Your task to perform on an android device: change timer sound Image 0: 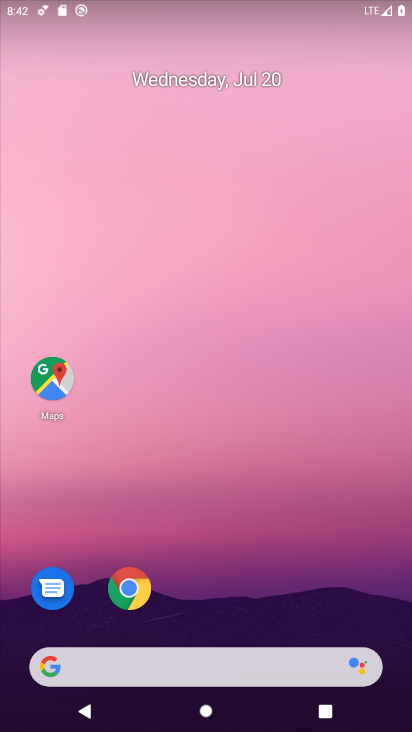
Step 0: press home button
Your task to perform on an android device: change timer sound Image 1: 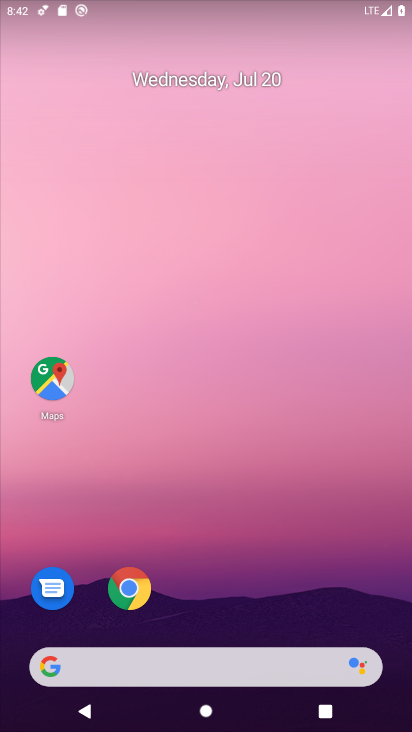
Step 1: drag from (213, 631) to (223, 71)
Your task to perform on an android device: change timer sound Image 2: 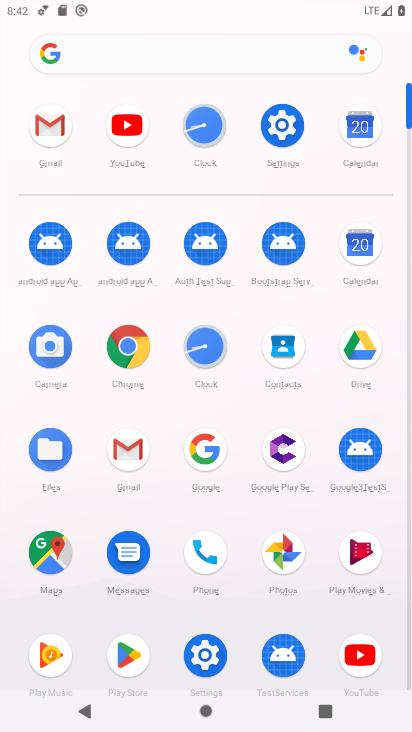
Step 2: click (200, 337)
Your task to perform on an android device: change timer sound Image 3: 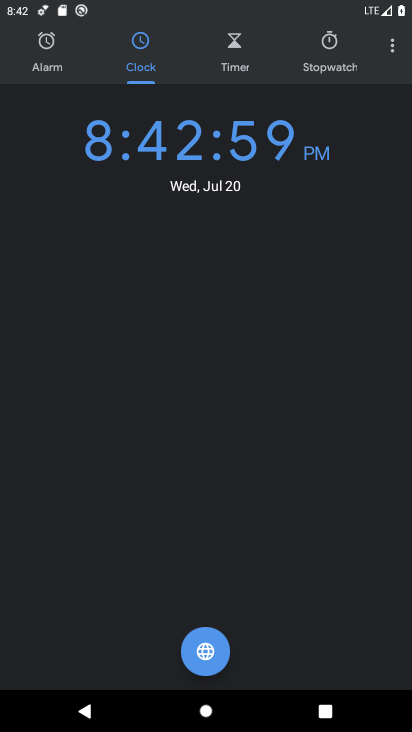
Step 3: click (390, 49)
Your task to perform on an android device: change timer sound Image 4: 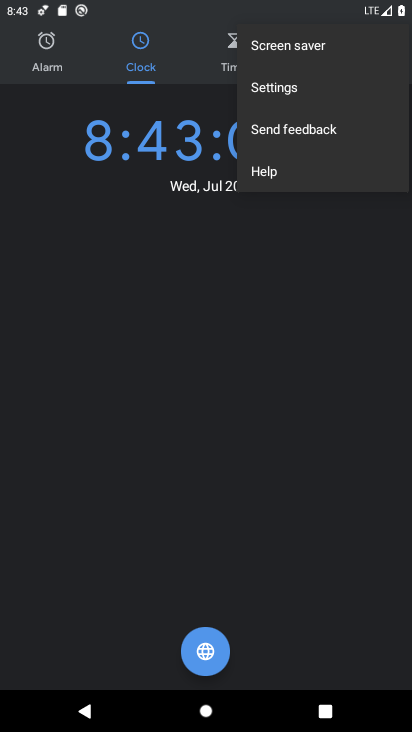
Step 4: click (309, 82)
Your task to perform on an android device: change timer sound Image 5: 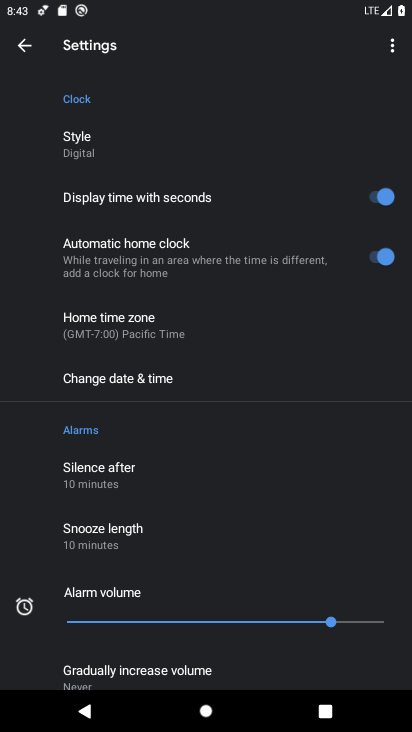
Step 5: drag from (168, 586) to (217, 194)
Your task to perform on an android device: change timer sound Image 6: 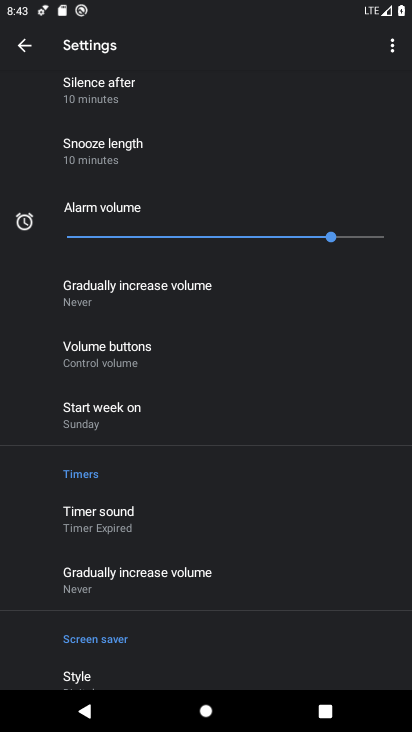
Step 6: click (149, 521)
Your task to perform on an android device: change timer sound Image 7: 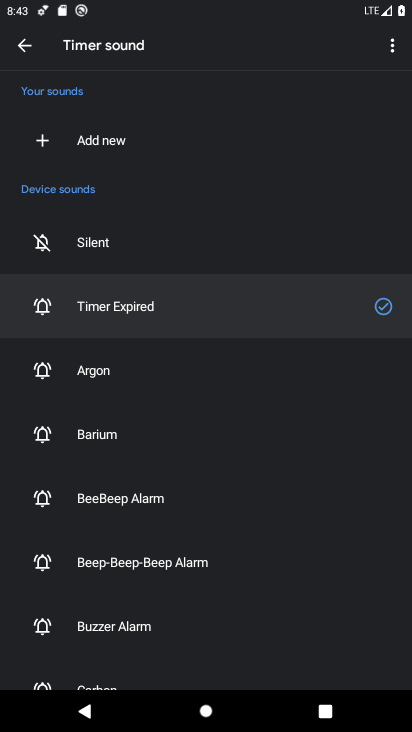
Step 7: click (169, 627)
Your task to perform on an android device: change timer sound Image 8: 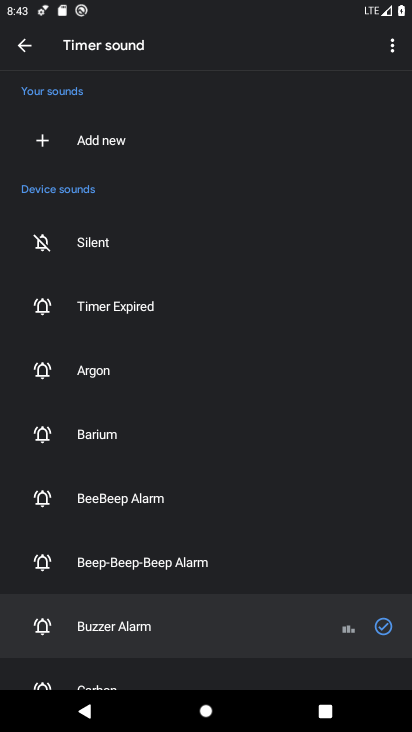
Step 8: task complete